Your task to perform on an android device: turn off notifications settings in the gmail app Image 0: 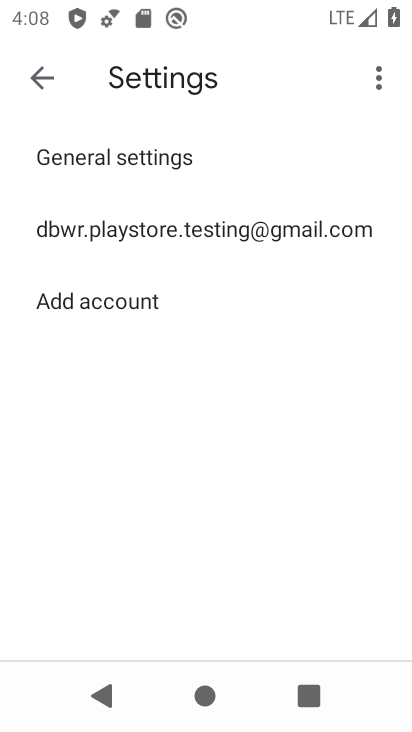
Step 0: click (125, 227)
Your task to perform on an android device: turn off notifications settings in the gmail app Image 1: 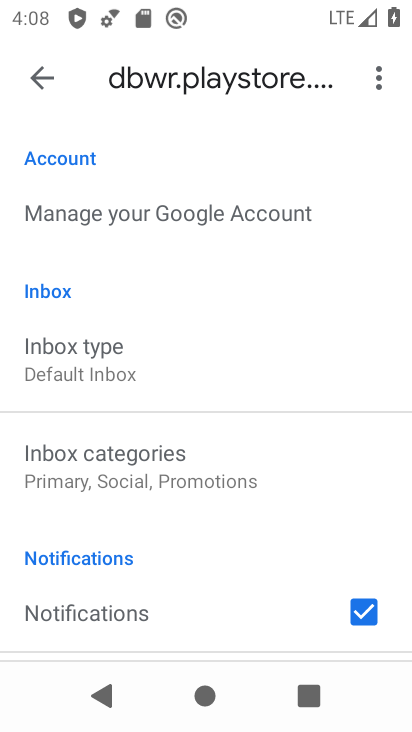
Step 1: drag from (260, 574) to (220, 188)
Your task to perform on an android device: turn off notifications settings in the gmail app Image 2: 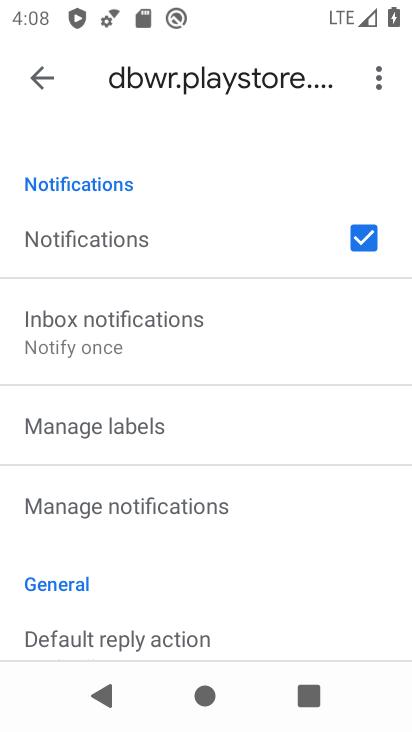
Step 2: click (112, 507)
Your task to perform on an android device: turn off notifications settings in the gmail app Image 3: 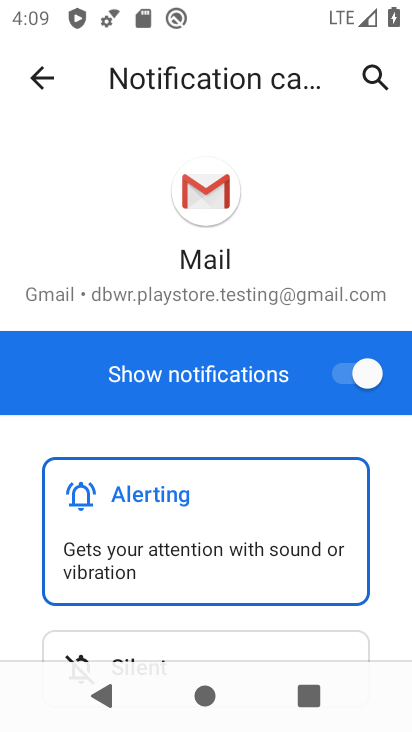
Step 3: click (335, 369)
Your task to perform on an android device: turn off notifications settings in the gmail app Image 4: 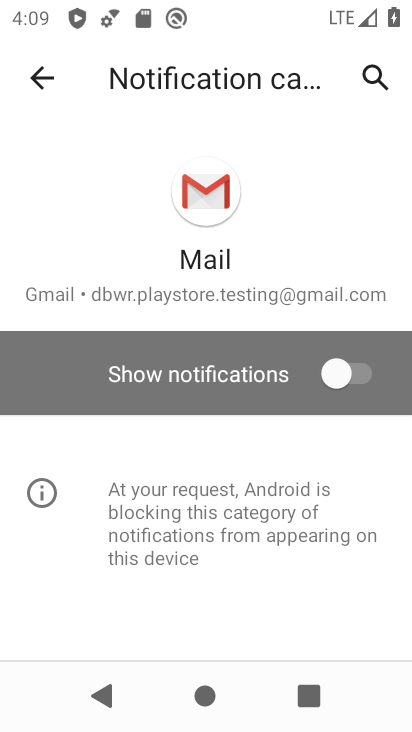
Step 4: task complete